Your task to perform on an android device: open a bookmark in the chrome app Image 0: 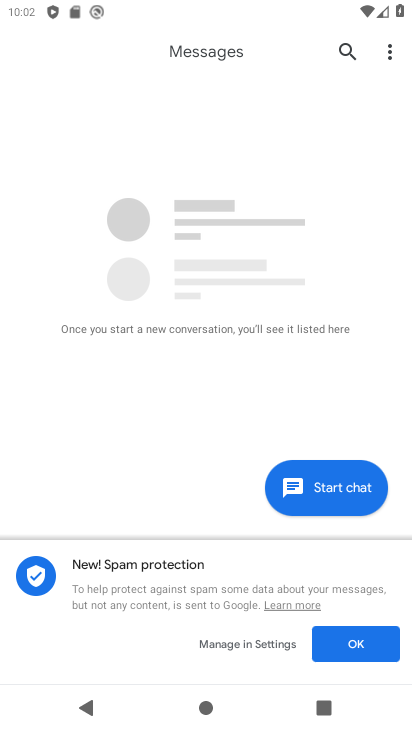
Step 0: press home button
Your task to perform on an android device: open a bookmark in the chrome app Image 1: 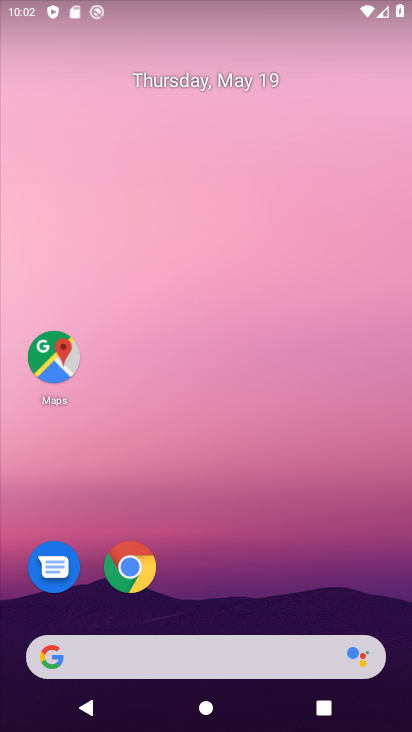
Step 1: click (134, 572)
Your task to perform on an android device: open a bookmark in the chrome app Image 2: 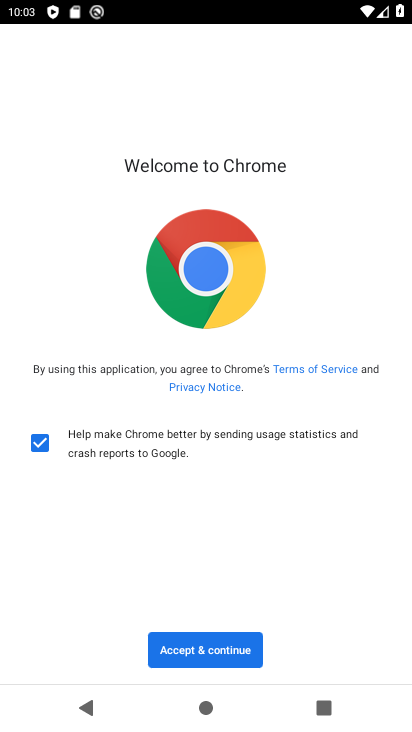
Step 2: click (208, 653)
Your task to perform on an android device: open a bookmark in the chrome app Image 3: 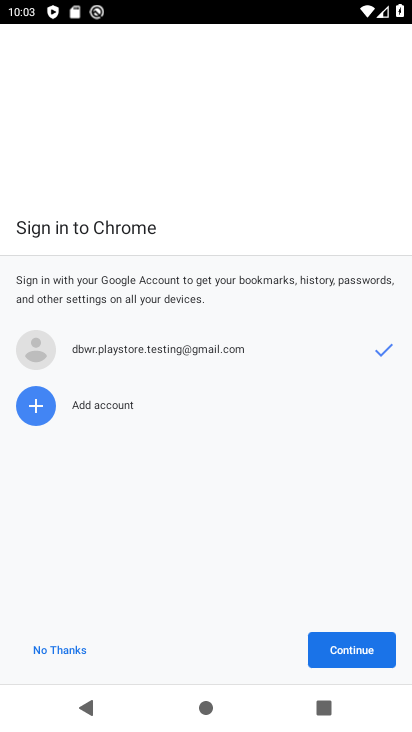
Step 3: click (338, 655)
Your task to perform on an android device: open a bookmark in the chrome app Image 4: 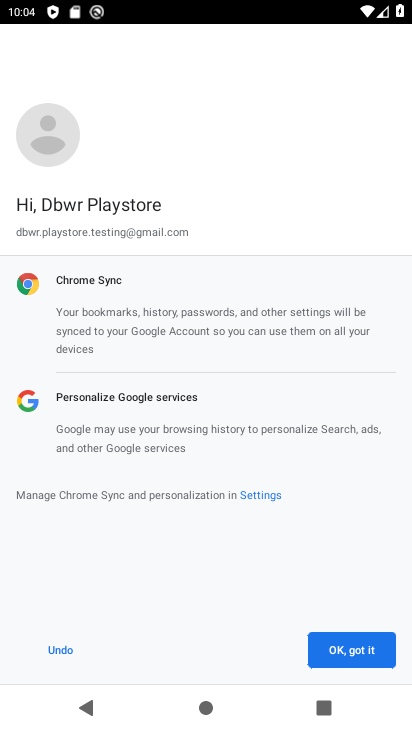
Step 4: click (338, 655)
Your task to perform on an android device: open a bookmark in the chrome app Image 5: 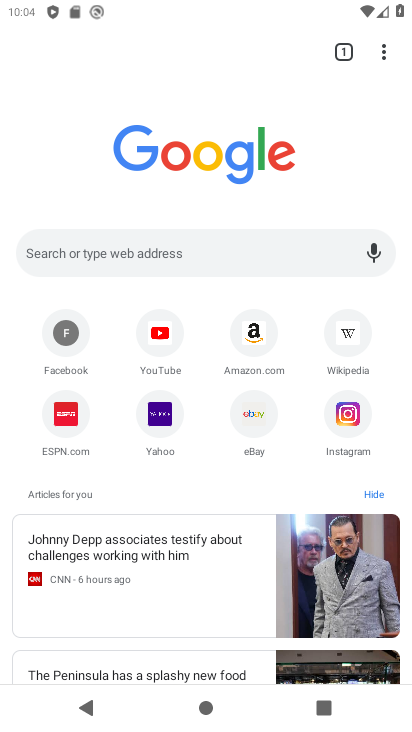
Step 5: click (379, 53)
Your task to perform on an android device: open a bookmark in the chrome app Image 6: 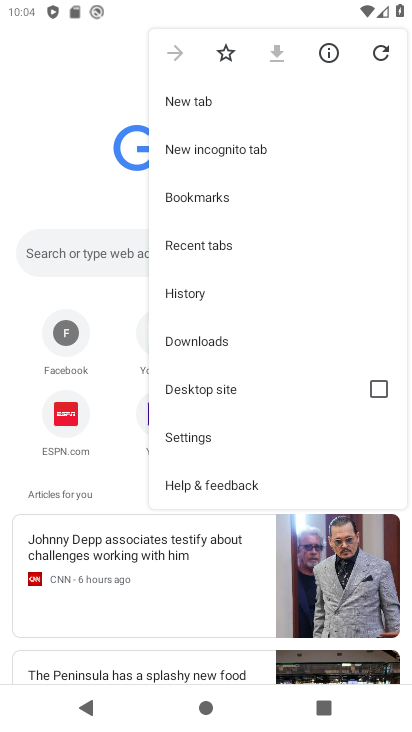
Step 6: click (207, 192)
Your task to perform on an android device: open a bookmark in the chrome app Image 7: 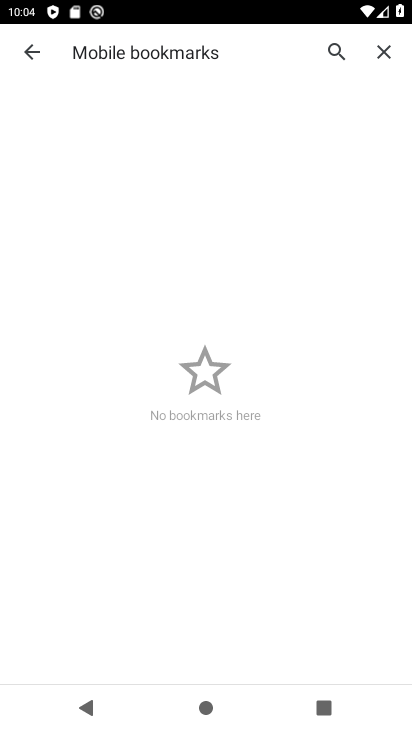
Step 7: task complete